Your task to perform on an android device: Open Chrome and go to the settings page Image 0: 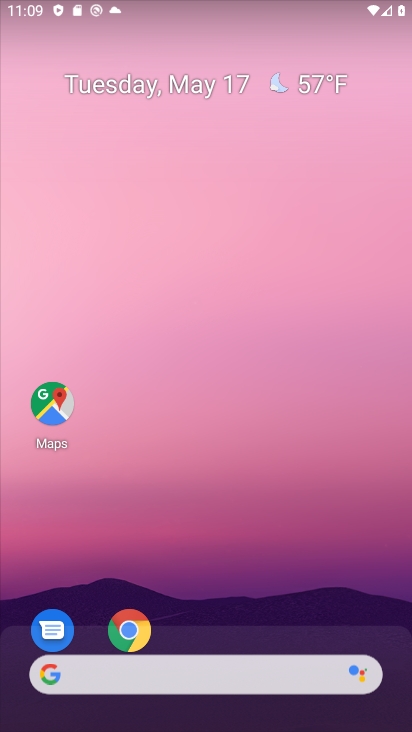
Step 0: click (128, 648)
Your task to perform on an android device: Open Chrome and go to the settings page Image 1: 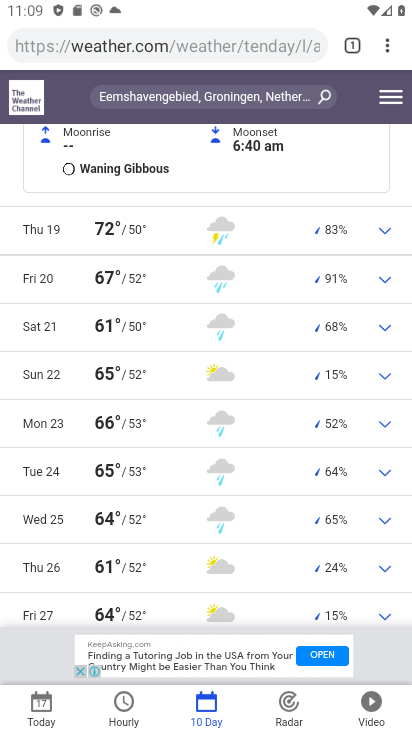
Step 1: task complete